Your task to perform on an android device: Open Google Maps and go to "Timeline" Image 0: 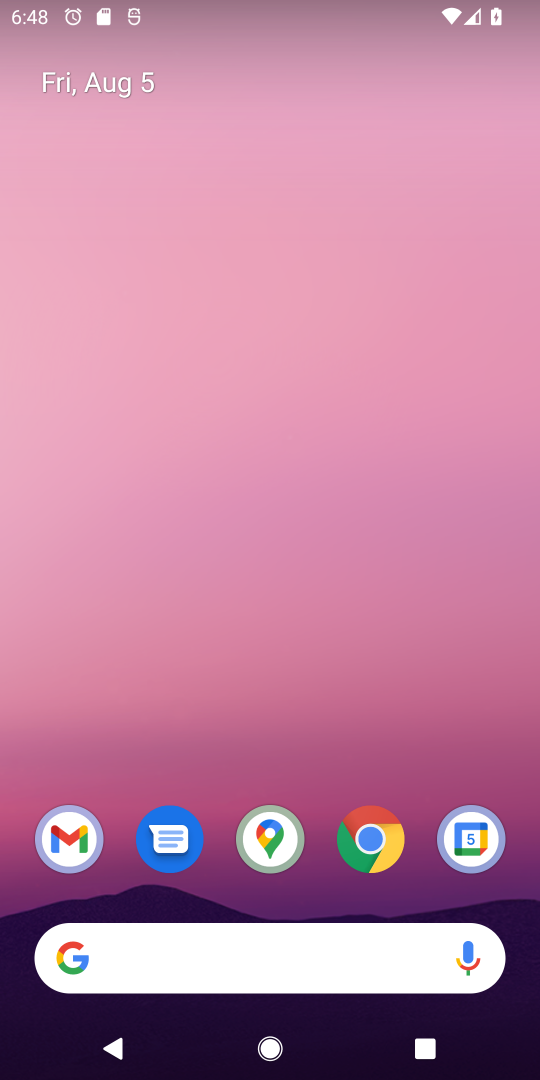
Step 0: click (285, 852)
Your task to perform on an android device: Open Google Maps and go to "Timeline" Image 1: 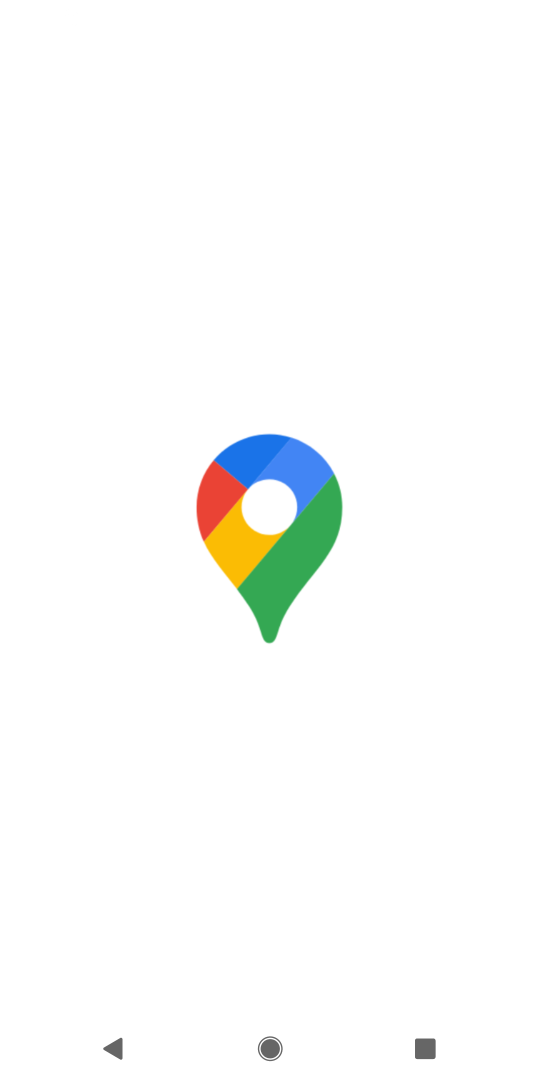
Step 1: task complete